Your task to perform on an android device: Open Yahoo.com Image 0: 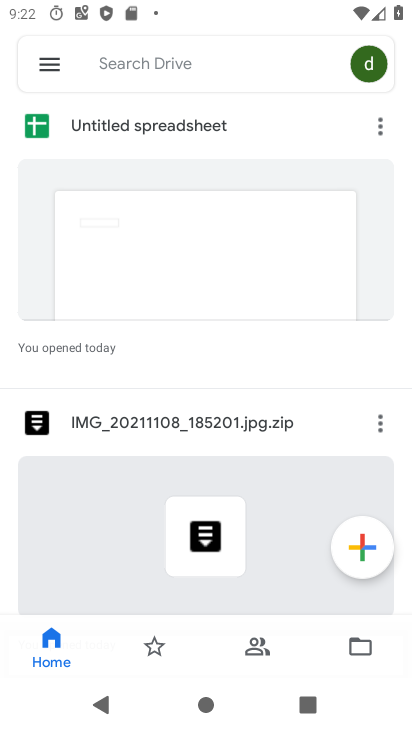
Step 0: press home button
Your task to perform on an android device: Open Yahoo.com Image 1: 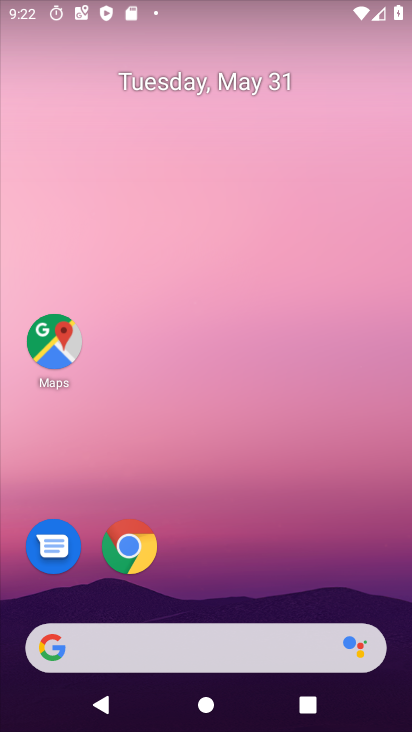
Step 1: click (125, 548)
Your task to perform on an android device: Open Yahoo.com Image 2: 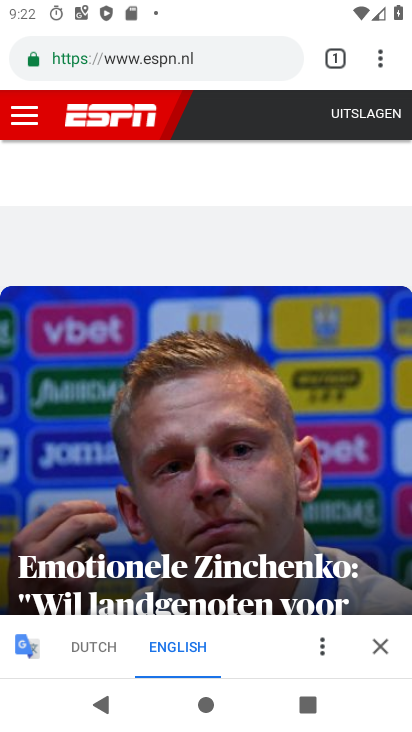
Step 2: click (339, 58)
Your task to perform on an android device: Open Yahoo.com Image 3: 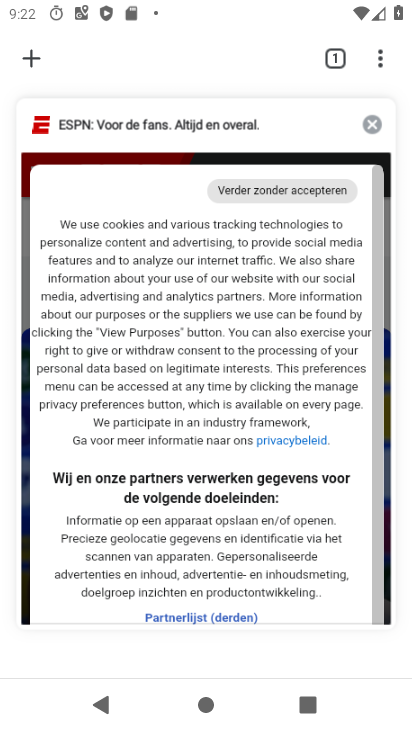
Step 3: click (36, 61)
Your task to perform on an android device: Open Yahoo.com Image 4: 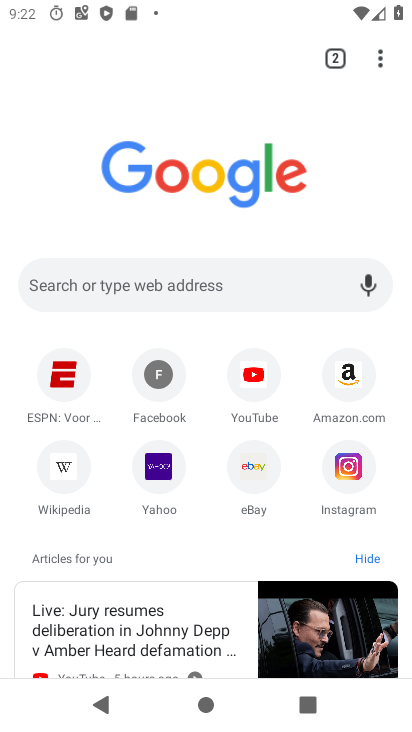
Step 4: click (163, 485)
Your task to perform on an android device: Open Yahoo.com Image 5: 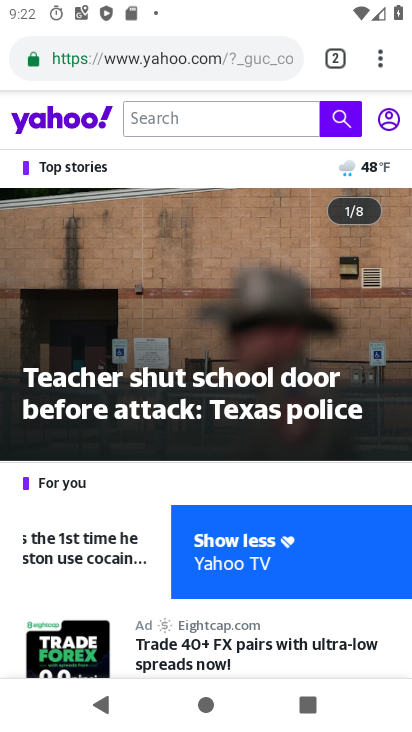
Step 5: task complete